Your task to perform on an android device: turn on wifi Image 0: 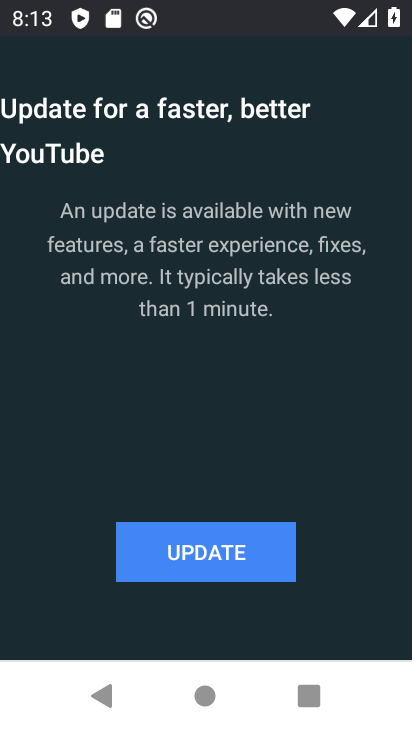
Step 0: press home button
Your task to perform on an android device: turn on wifi Image 1: 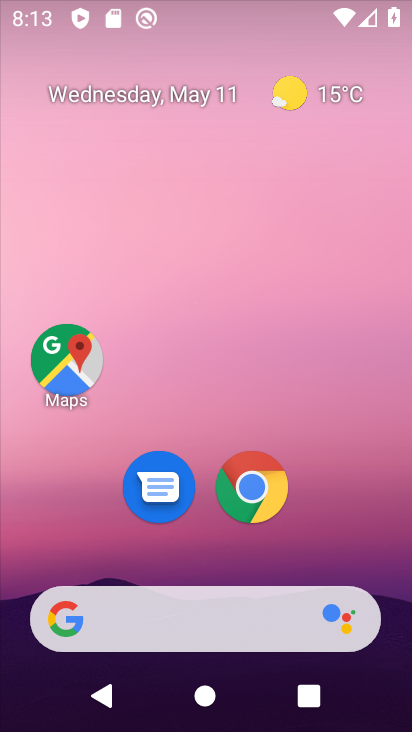
Step 1: drag from (262, 616) to (239, 148)
Your task to perform on an android device: turn on wifi Image 2: 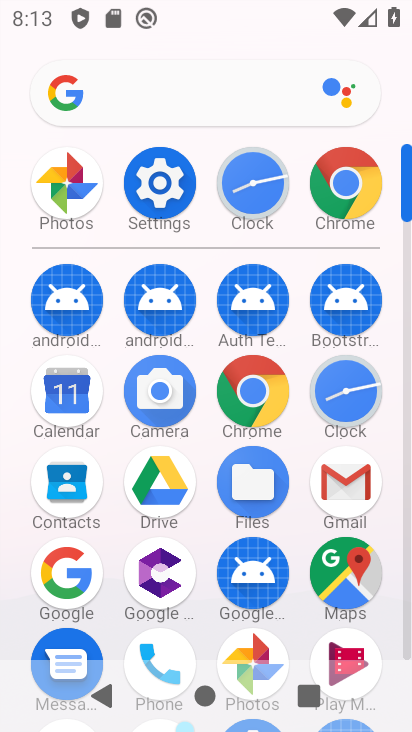
Step 2: click (164, 195)
Your task to perform on an android device: turn on wifi Image 3: 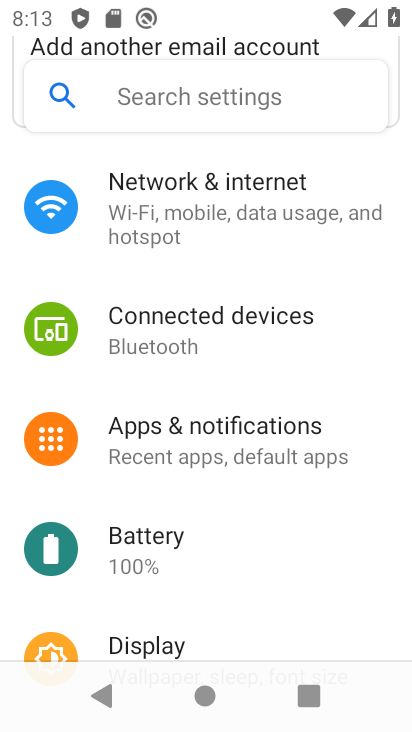
Step 3: click (191, 204)
Your task to perform on an android device: turn on wifi Image 4: 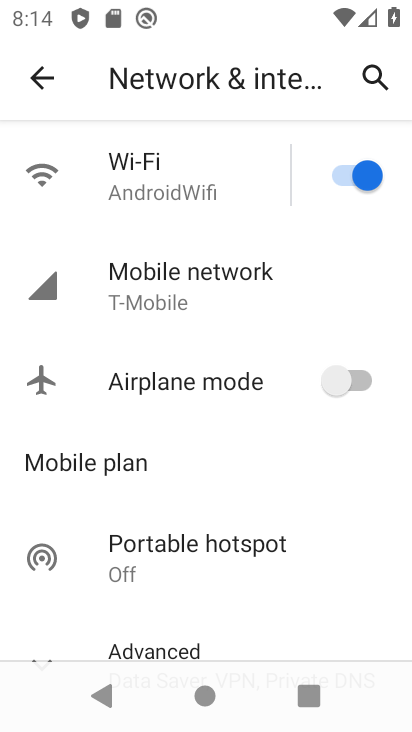
Step 4: click (177, 205)
Your task to perform on an android device: turn on wifi Image 5: 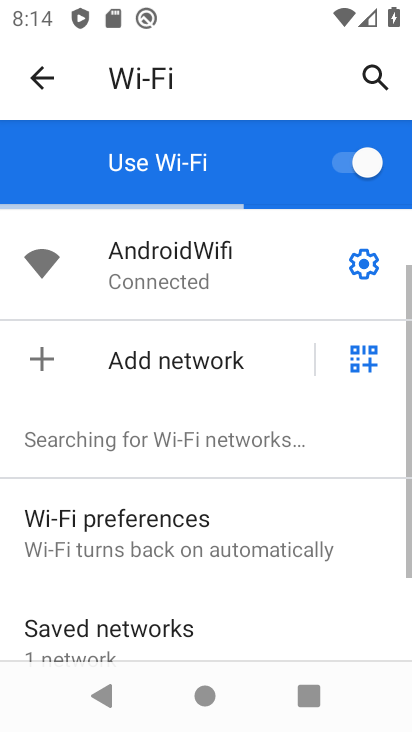
Step 5: click (351, 165)
Your task to perform on an android device: turn on wifi Image 6: 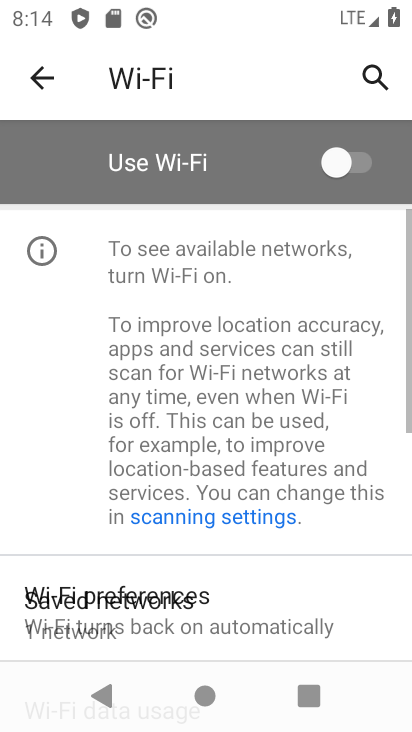
Step 6: task complete